Your task to perform on an android device: Go to accessibility settings Image 0: 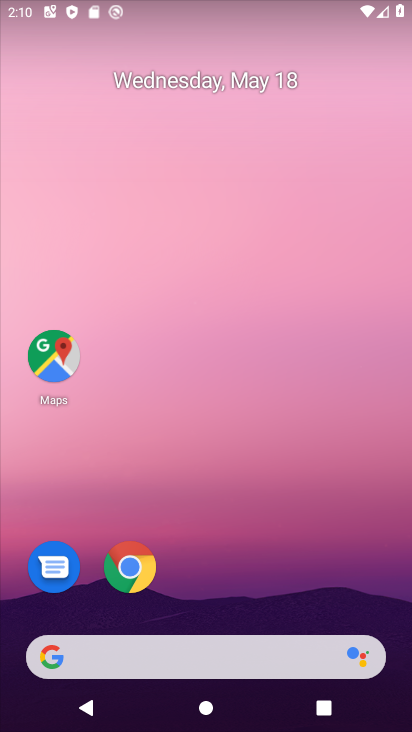
Step 0: click (142, 563)
Your task to perform on an android device: Go to accessibility settings Image 1: 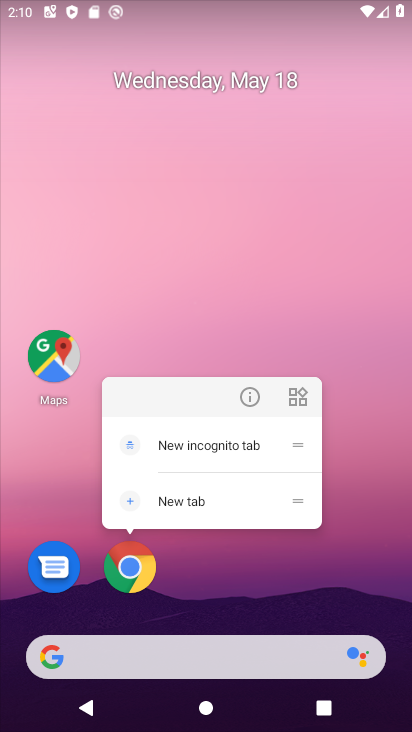
Step 1: click (116, 570)
Your task to perform on an android device: Go to accessibility settings Image 2: 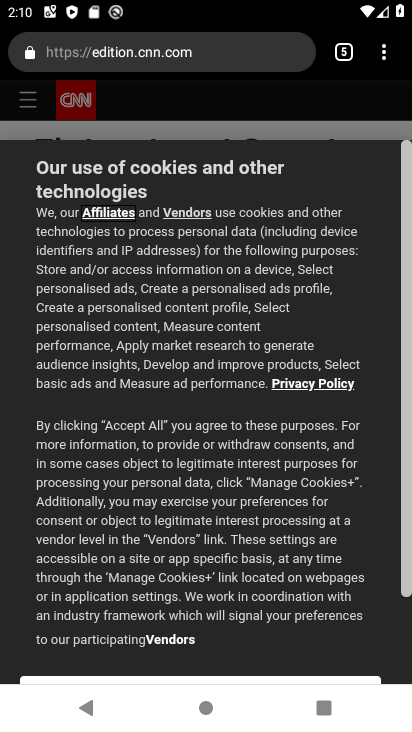
Step 2: click (387, 61)
Your task to perform on an android device: Go to accessibility settings Image 3: 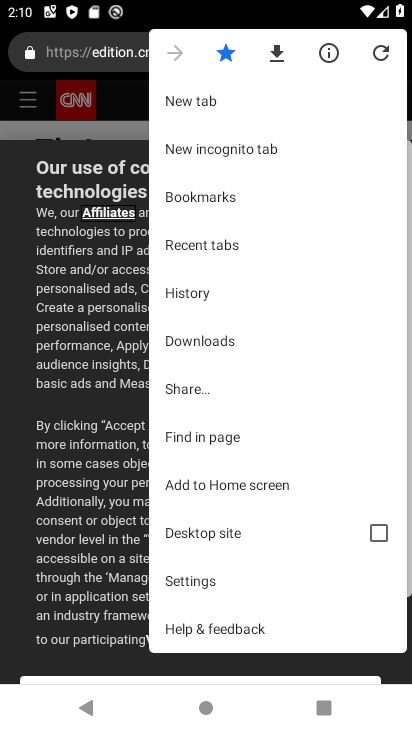
Step 3: click (260, 104)
Your task to perform on an android device: Go to accessibility settings Image 4: 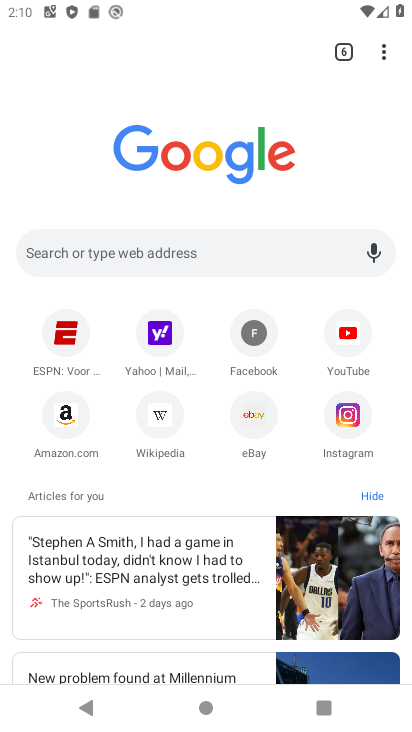
Step 4: press home button
Your task to perform on an android device: Go to accessibility settings Image 5: 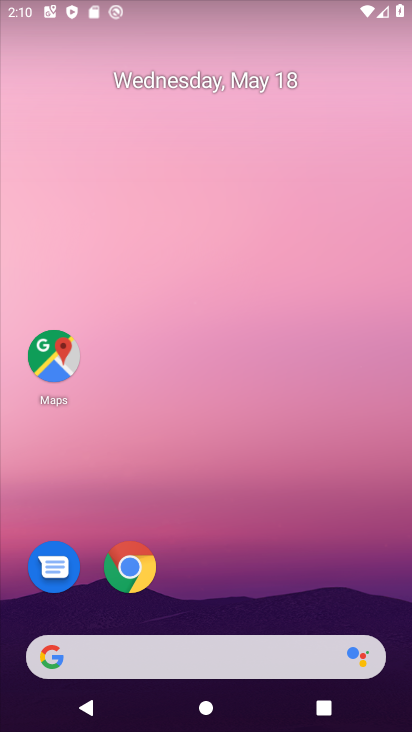
Step 5: drag from (197, 408) to (197, 211)
Your task to perform on an android device: Go to accessibility settings Image 6: 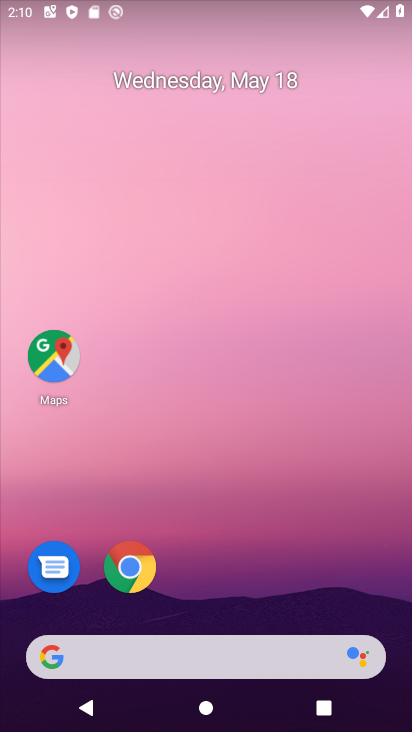
Step 6: drag from (196, 471) to (196, 93)
Your task to perform on an android device: Go to accessibility settings Image 7: 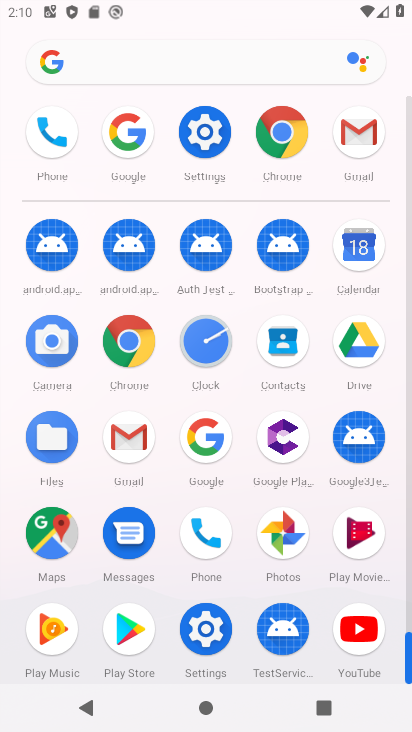
Step 7: click (193, 134)
Your task to perform on an android device: Go to accessibility settings Image 8: 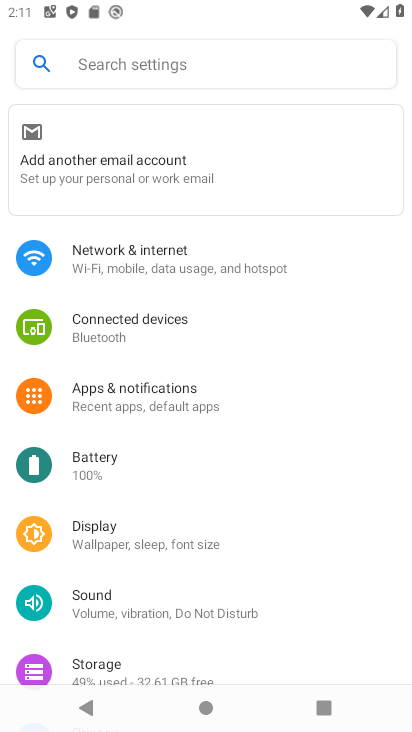
Step 8: drag from (184, 613) to (212, 200)
Your task to perform on an android device: Go to accessibility settings Image 9: 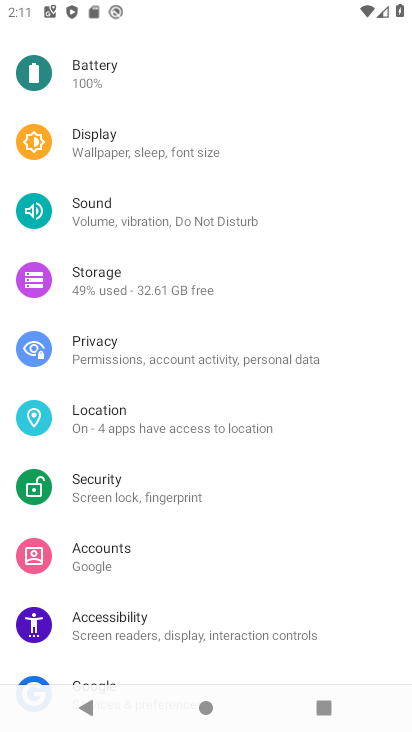
Step 9: click (156, 622)
Your task to perform on an android device: Go to accessibility settings Image 10: 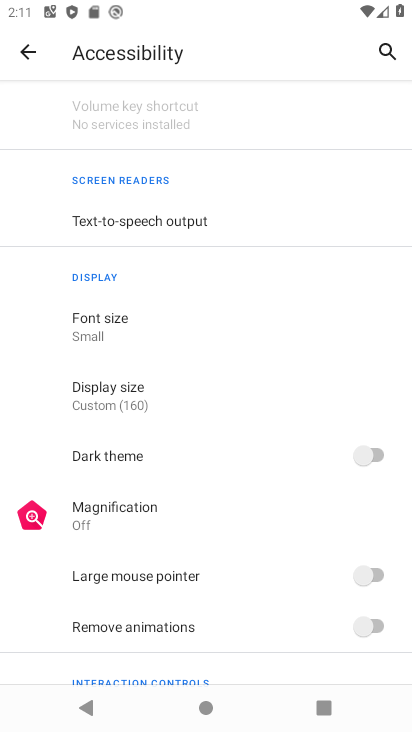
Step 10: task complete